Your task to perform on an android device: Open Chrome and go to the settings page Image 0: 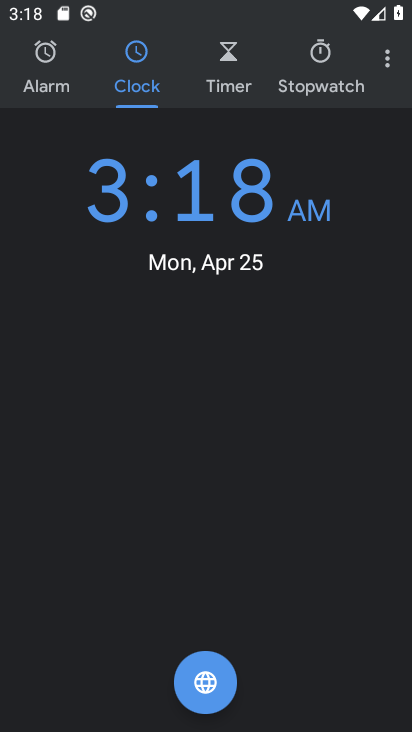
Step 0: press home button
Your task to perform on an android device: Open Chrome and go to the settings page Image 1: 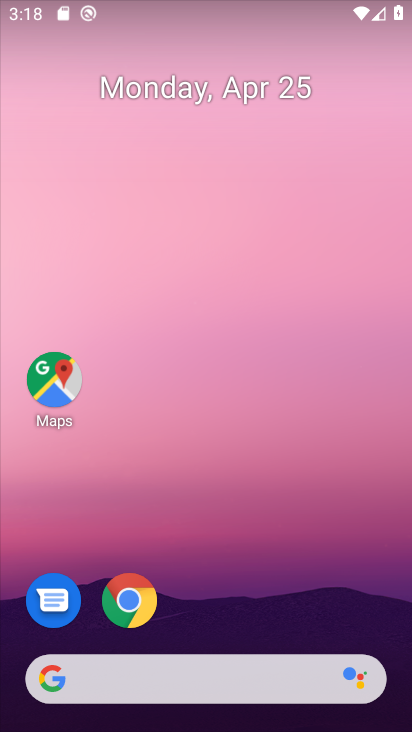
Step 1: click (366, 11)
Your task to perform on an android device: Open Chrome and go to the settings page Image 2: 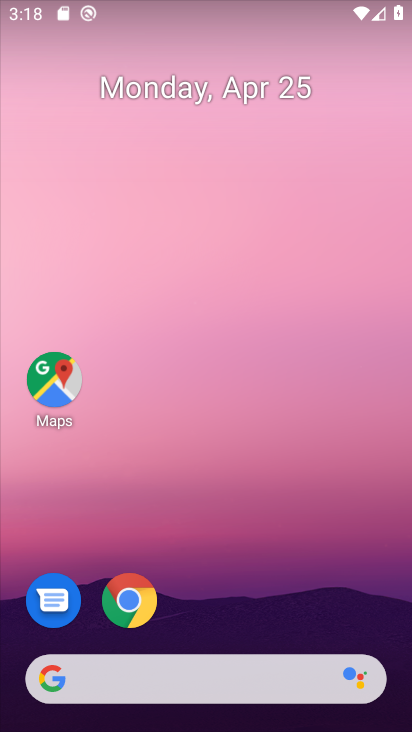
Step 2: drag from (331, 484) to (354, 108)
Your task to perform on an android device: Open Chrome and go to the settings page Image 3: 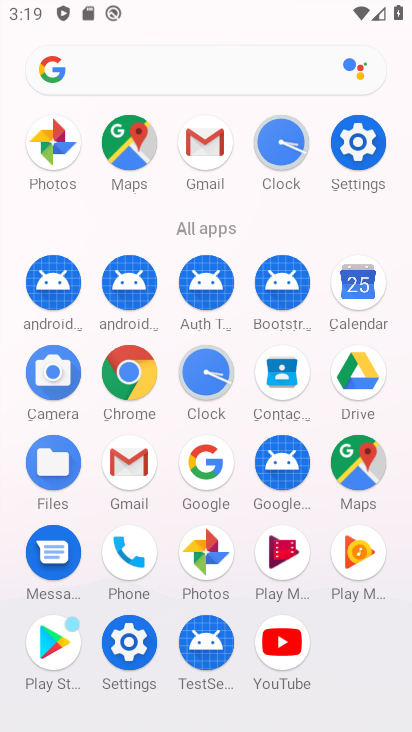
Step 3: click (148, 383)
Your task to perform on an android device: Open Chrome and go to the settings page Image 4: 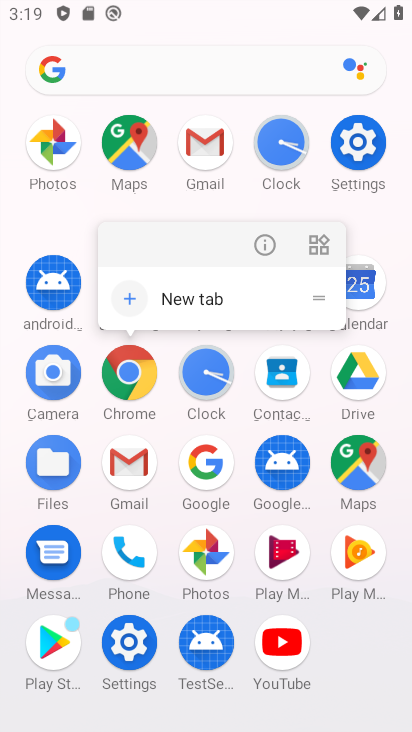
Step 4: click (148, 383)
Your task to perform on an android device: Open Chrome and go to the settings page Image 5: 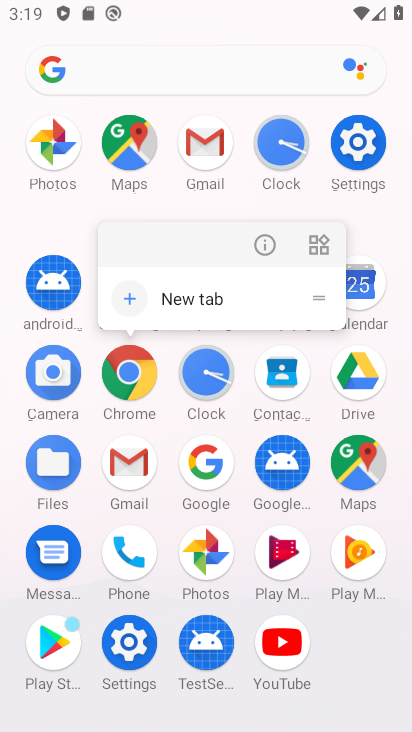
Step 5: click (132, 369)
Your task to perform on an android device: Open Chrome and go to the settings page Image 6: 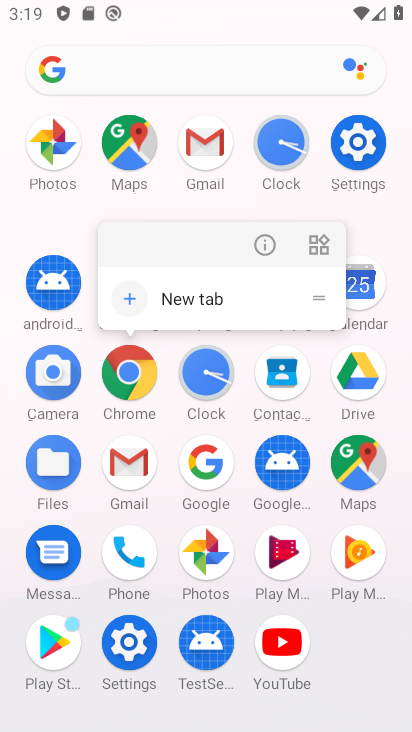
Step 6: click (132, 369)
Your task to perform on an android device: Open Chrome and go to the settings page Image 7: 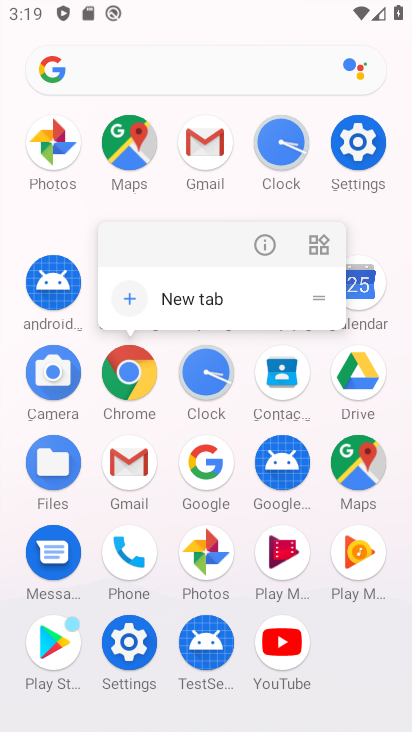
Step 7: click (132, 369)
Your task to perform on an android device: Open Chrome and go to the settings page Image 8: 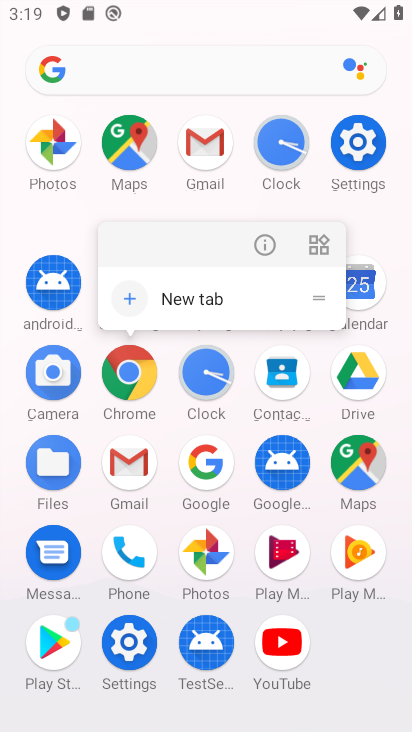
Step 8: click (132, 369)
Your task to perform on an android device: Open Chrome and go to the settings page Image 9: 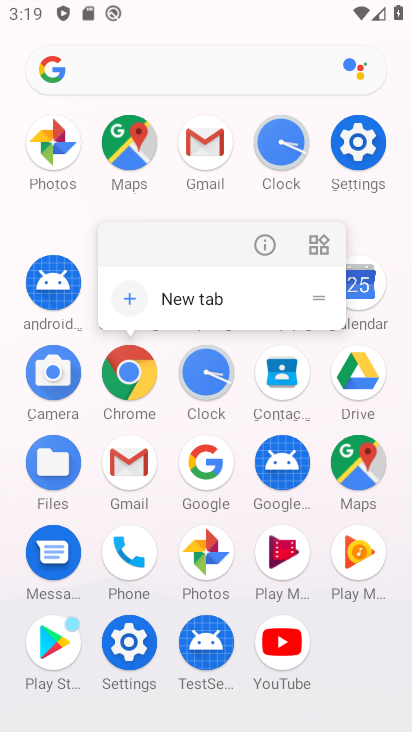
Step 9: click (132, 367)
Your task to perform on an android device: Open Chrome and go to the settings page Image 10: 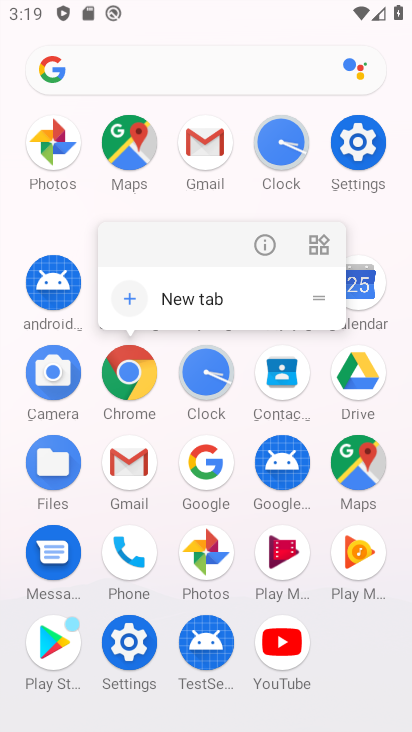
Step 10: click (132, 367)
Your task to perform on an android device: Open Chrome and go to the settings page Image 11: 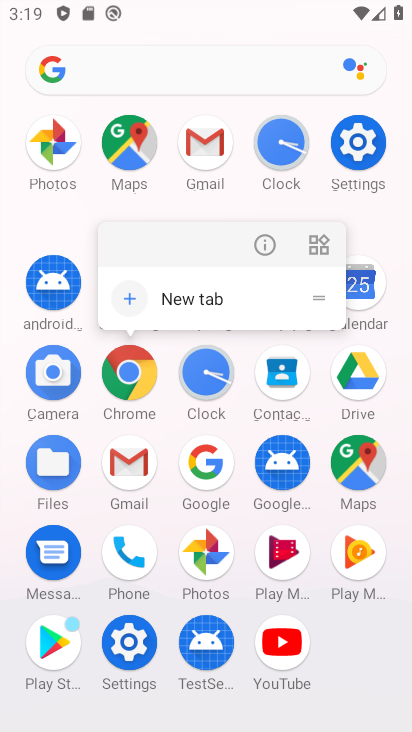
Step 11: click (132, 366)
Your task to perform on an android device: Open Chrome and go to the settings page Image 12: 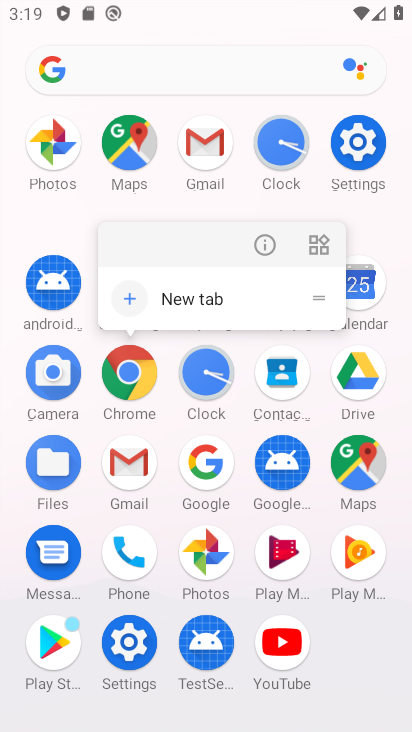
Step 12: click (132, 365)
Your task to perform on an android device: Open Chrome and go to the settings page Image 13: 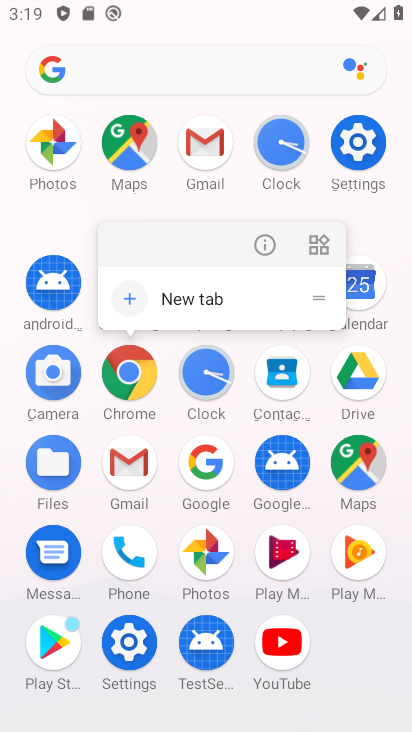
Step 13: click (132, 365)
Your task to perform on an android device: Open Chrome and go to the settings page Image 14: 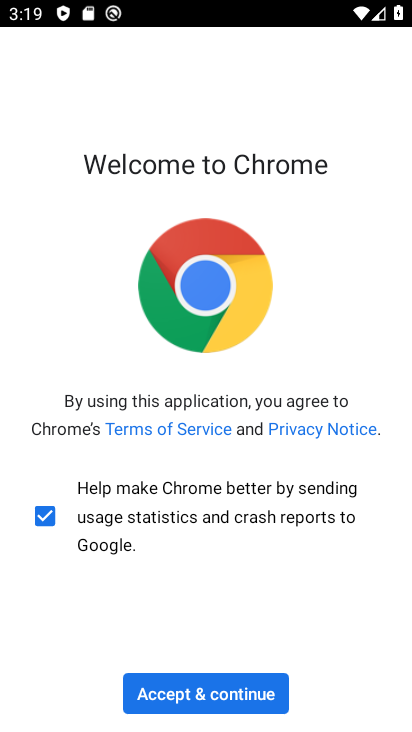
Step 14: click (211, 705)
Your task to perform on an android device: Open Chrome and go to the settings page Image 15: 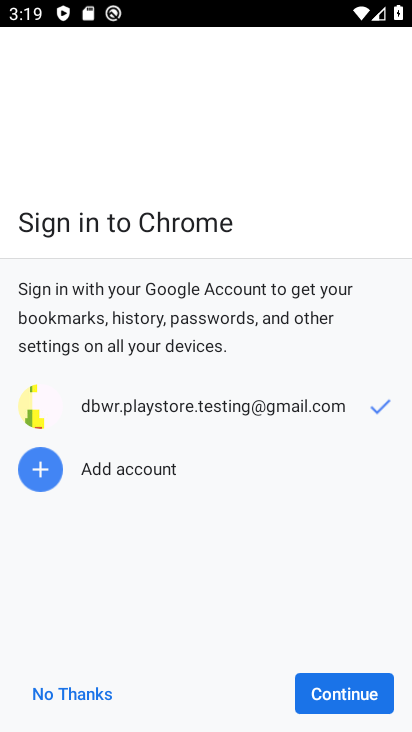
Step 15: click (96, 694)
Your task to perform on an android device: Open Chrome and go to the settings page Image 16: 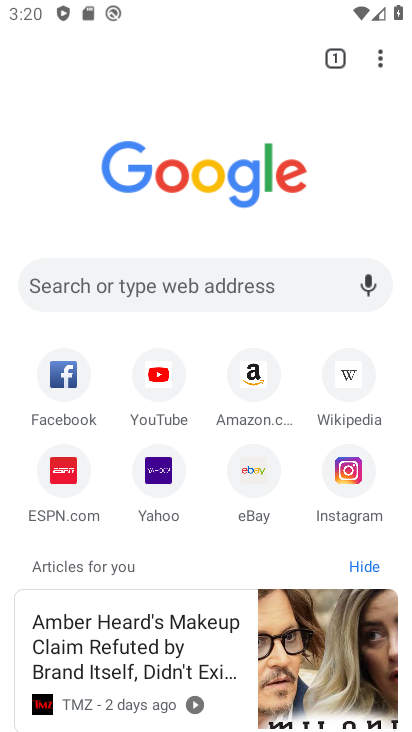
Step 16: click (387, 66)
Your task to perform on an android device: Open Chrome and go to the settings page Image 17: 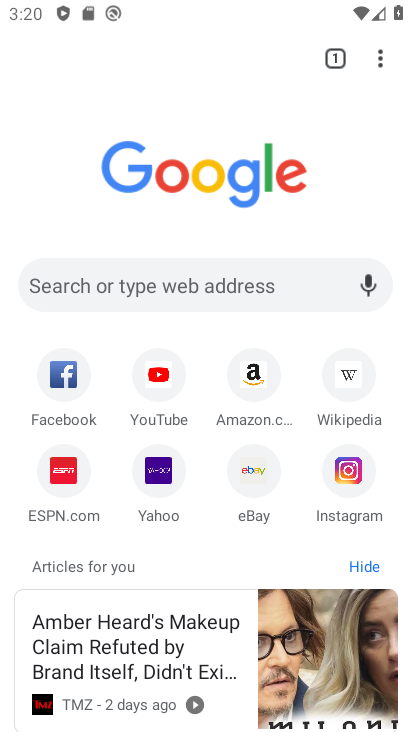
Step 17: task complete